Your task to perform on an android device: allow cookies in the chrome app Image 0: 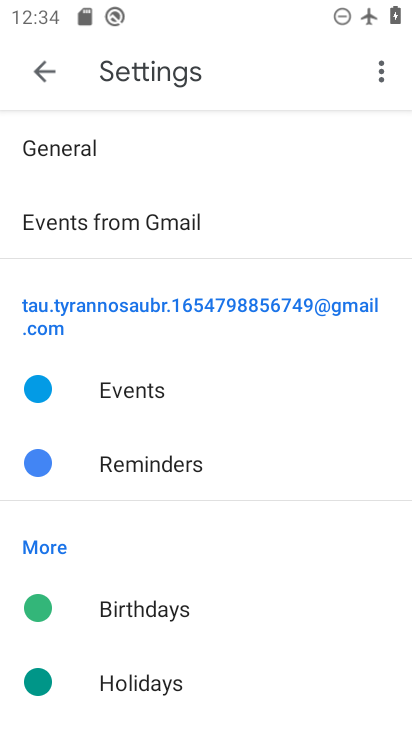
Step 0: press home button
Your task to perform on an android device: allow cookies in the chrome app Image 1: 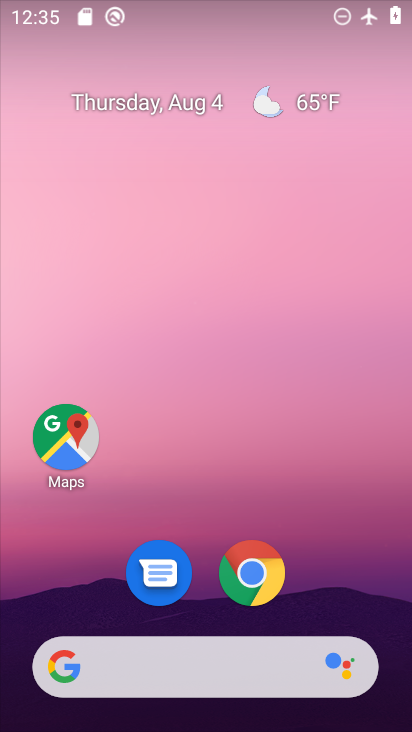
Step 1: drag from (346, 612) to (323, 96)
Your task to perform on an android device: allow cookies in the chrome app Image 2: 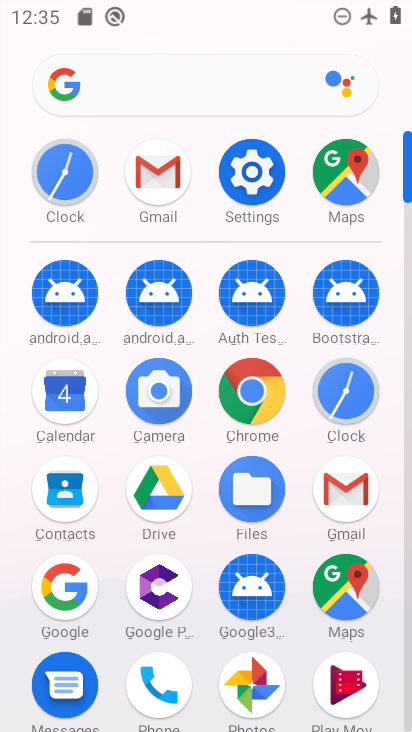
Step 2: click (254, 395)
Your task to perform on an android device: allow cookies in the chrome app Image 3: 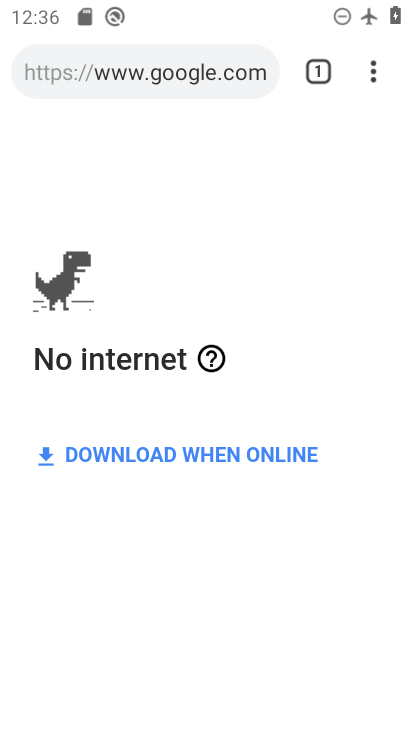
Step 3: drag from (386, 62) to (207, 561)
Your task to perform on an android device: allow cookies in the chrome app Image 4: 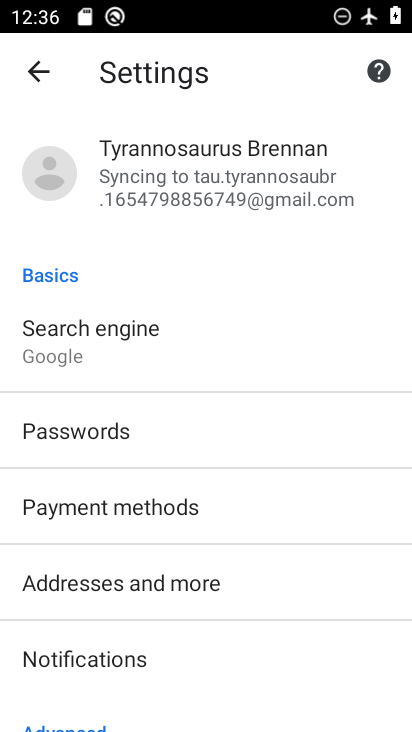
Step 4: drag from (338, 579) to (305, 114)
Your task to perform on an android device: allow cookies in the chrome app Image 5: 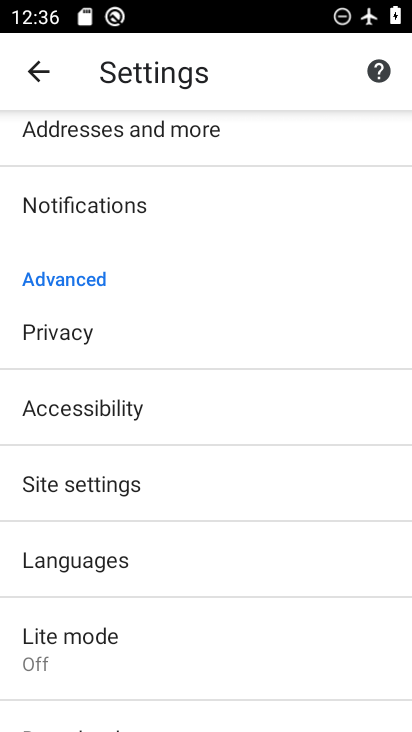
Step 5: click (107, 497)
Your task to perform on an android device: allow cookies in the chrome app Image 6: 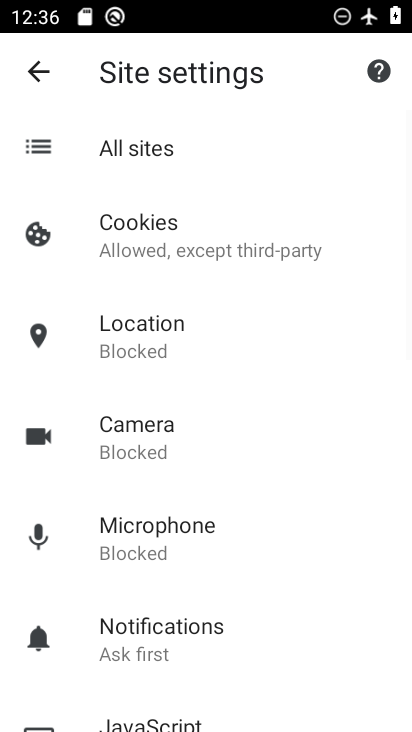
Step 6: click (212, 229)
Your task to perform on an android device: allow cookies in the chrome app Image 7: 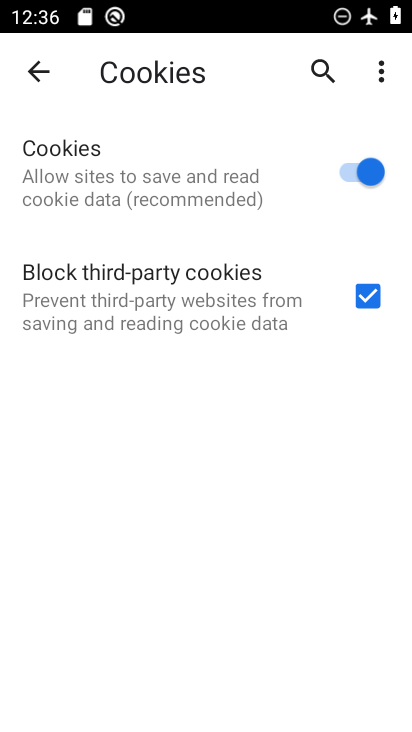
Step 7: task complete